Your task to perform on an android device: Is it going to rain this weekend? Image 0: 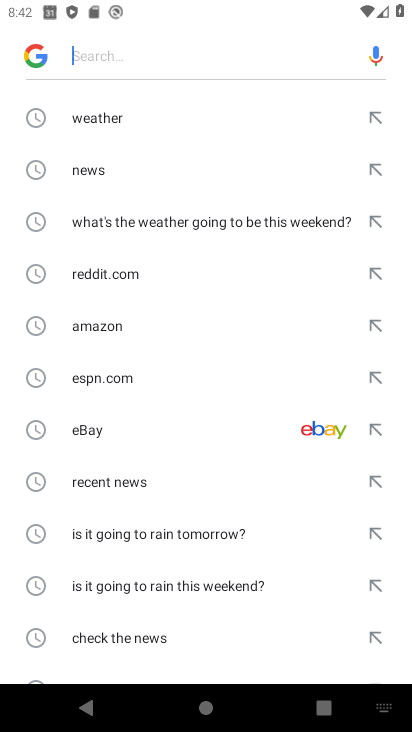
Step 0: press home button
Your task to perform on an android device: Is it going to rain this weekend? Image 1: 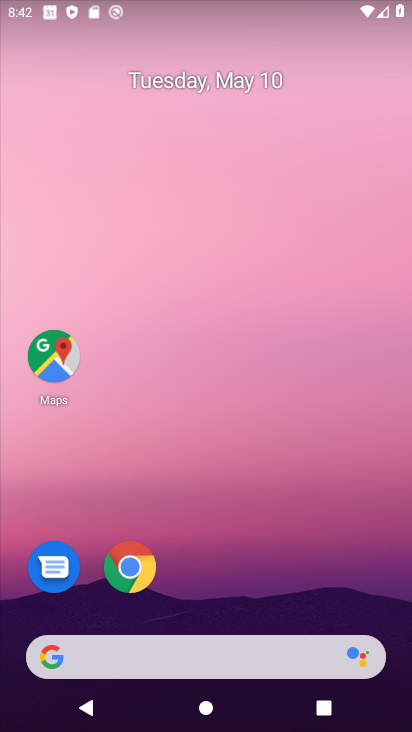
Step 1: drag from (273, 505) to (255, 28)
Your task to perform on an android device: Is it going to rain this weekend? Image 2: 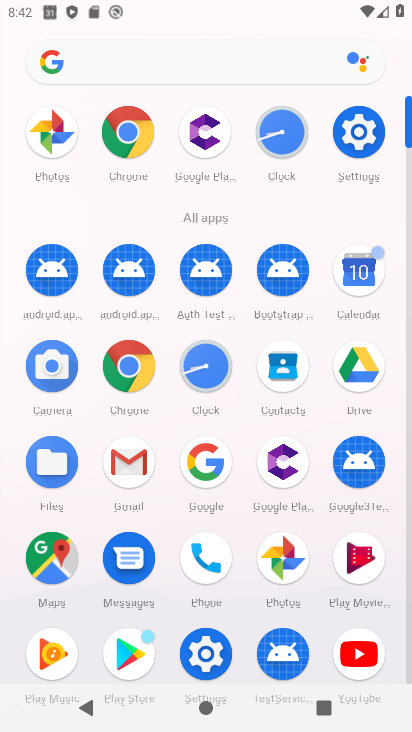
Step 2: drag from (391, 635) to (302, 91)
Your task to perform on an android device: Is it going to rain this weekend? Image 3: 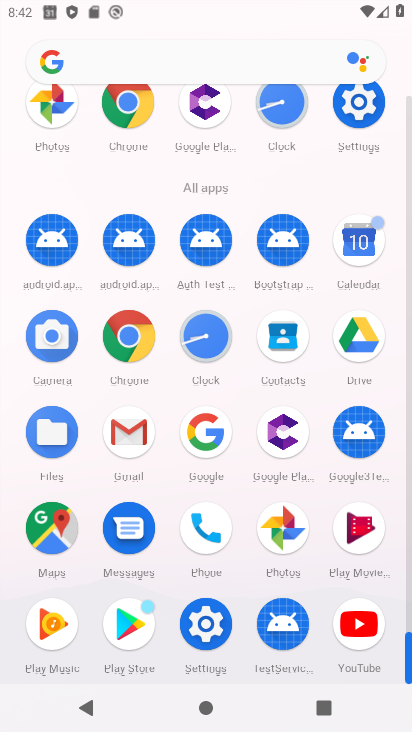
Step 3: click (200, 470)
Your task to perform on an android device: Is it going to rain this weekend? Image 4: 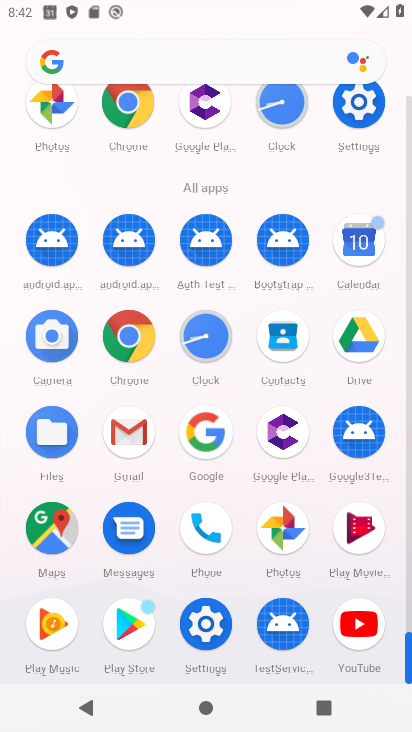
Step 4: click (194, 443)
Your task to perform on an android device: Is it going to rain this weekend? Image 5: 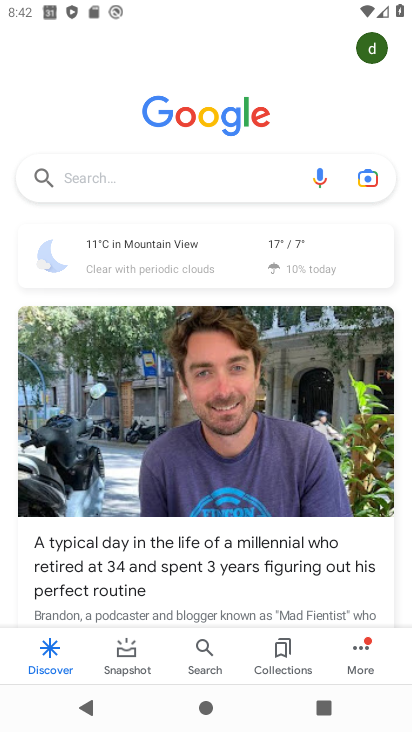
Step 5: click (137, 264)
Your task to perform on an android device: Is it going to rain this weekend? Image 6: 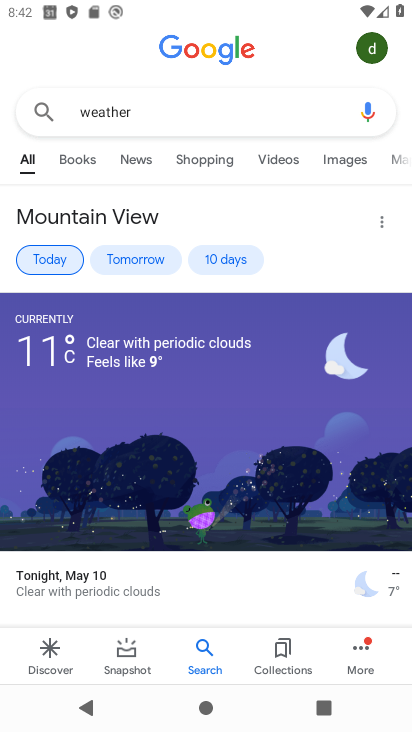
Step 6: click (218, 262)
Your task to perform on an android device: Is it going to rain this weekend? Image 7: 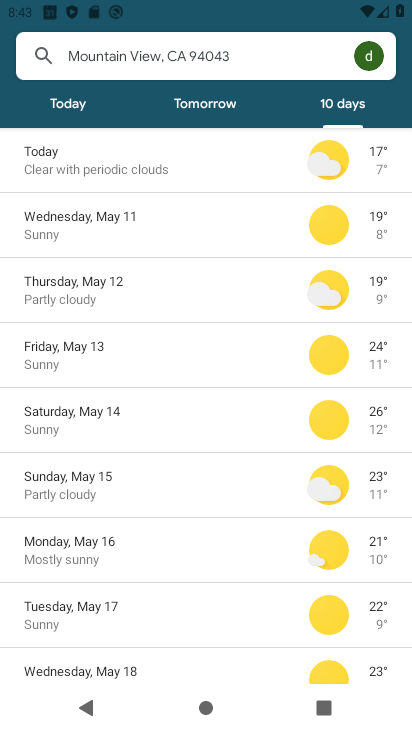
Step 7: task complete